Your task to perform on an android device: read, delete, or share a saved page in the chrome app Image 0: 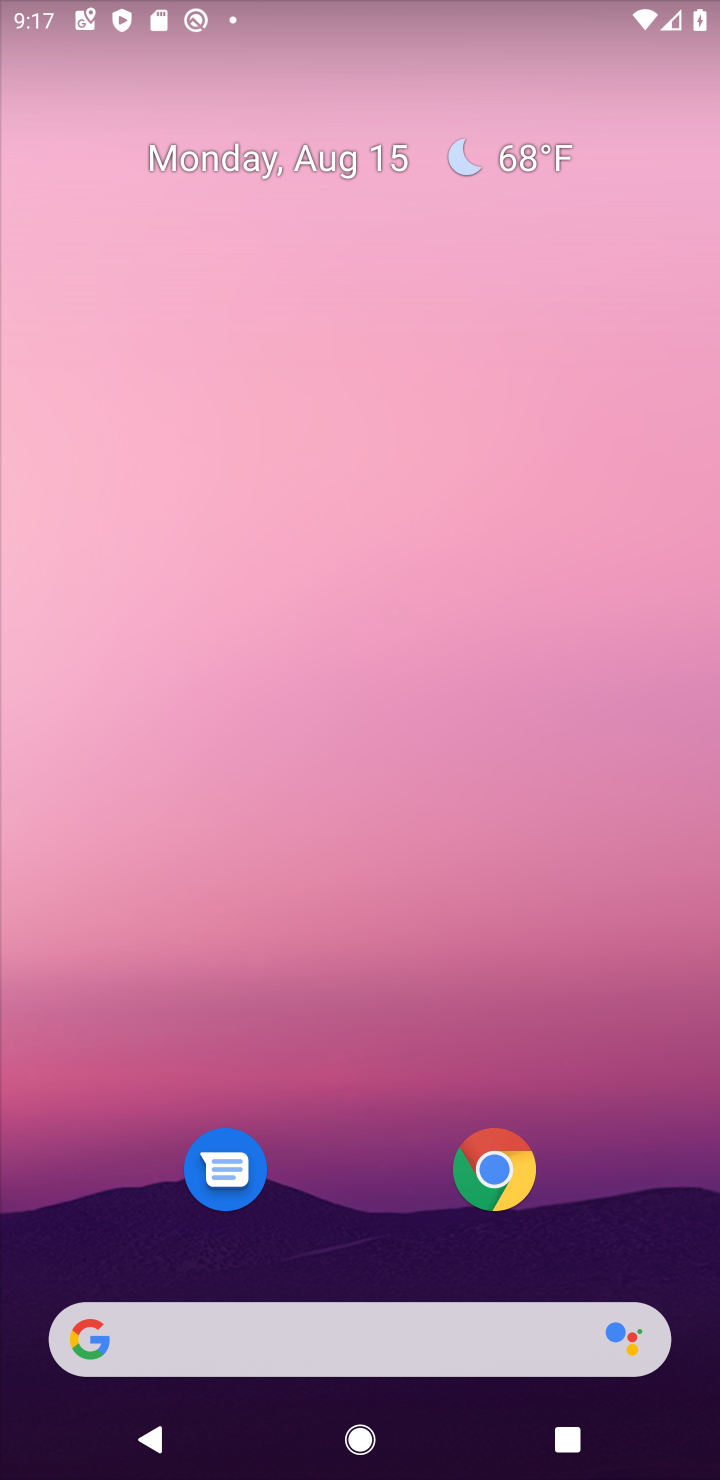
Step 0: press home button
Your task to perform on an android device: read, delete, or share a saved page in the chrome app Image 1: 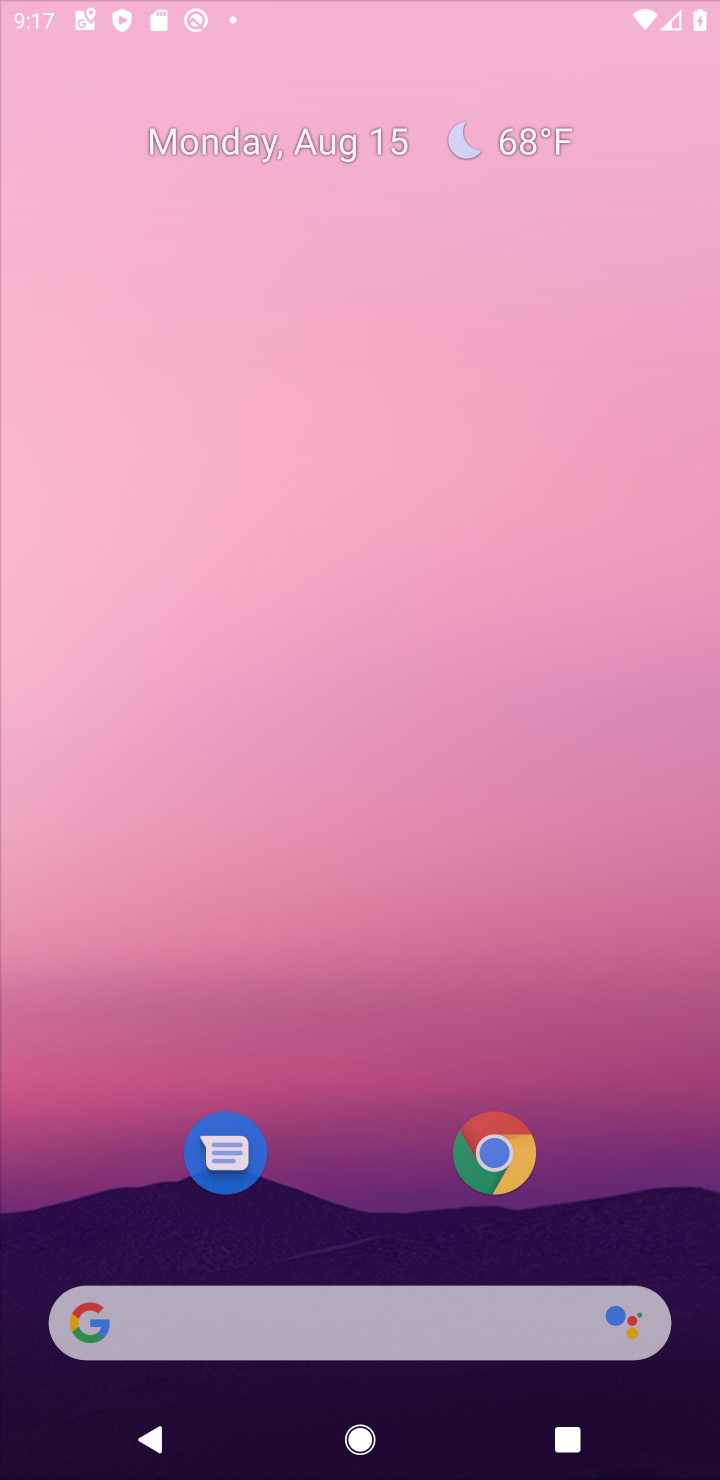
Step 1: click (492, 278)
Your task to perform on an android device: read, delete, or share a saved page in the chrome app Image 2: 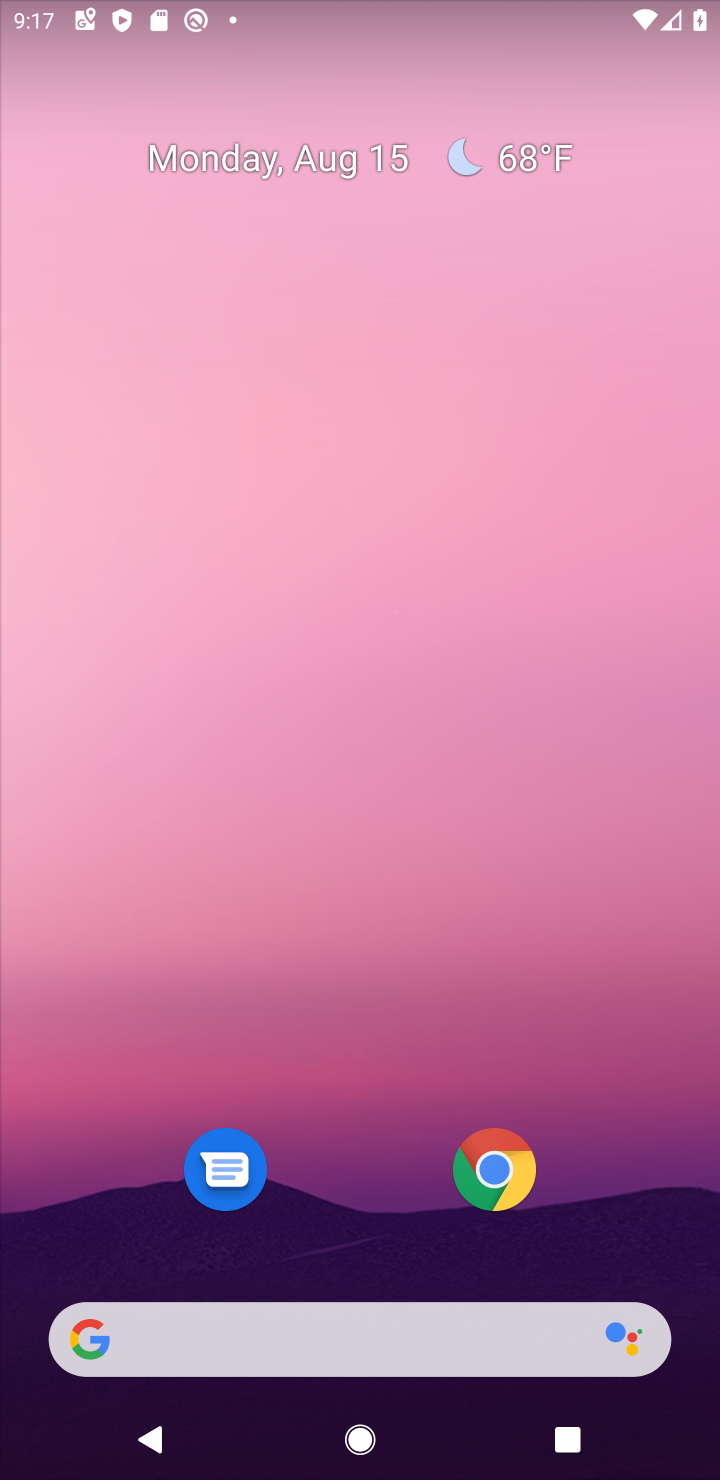
Step 2: click (492, 1172)
Your task to perform on an android device: read, delete, or share a saved page in the chrome app Image 3: 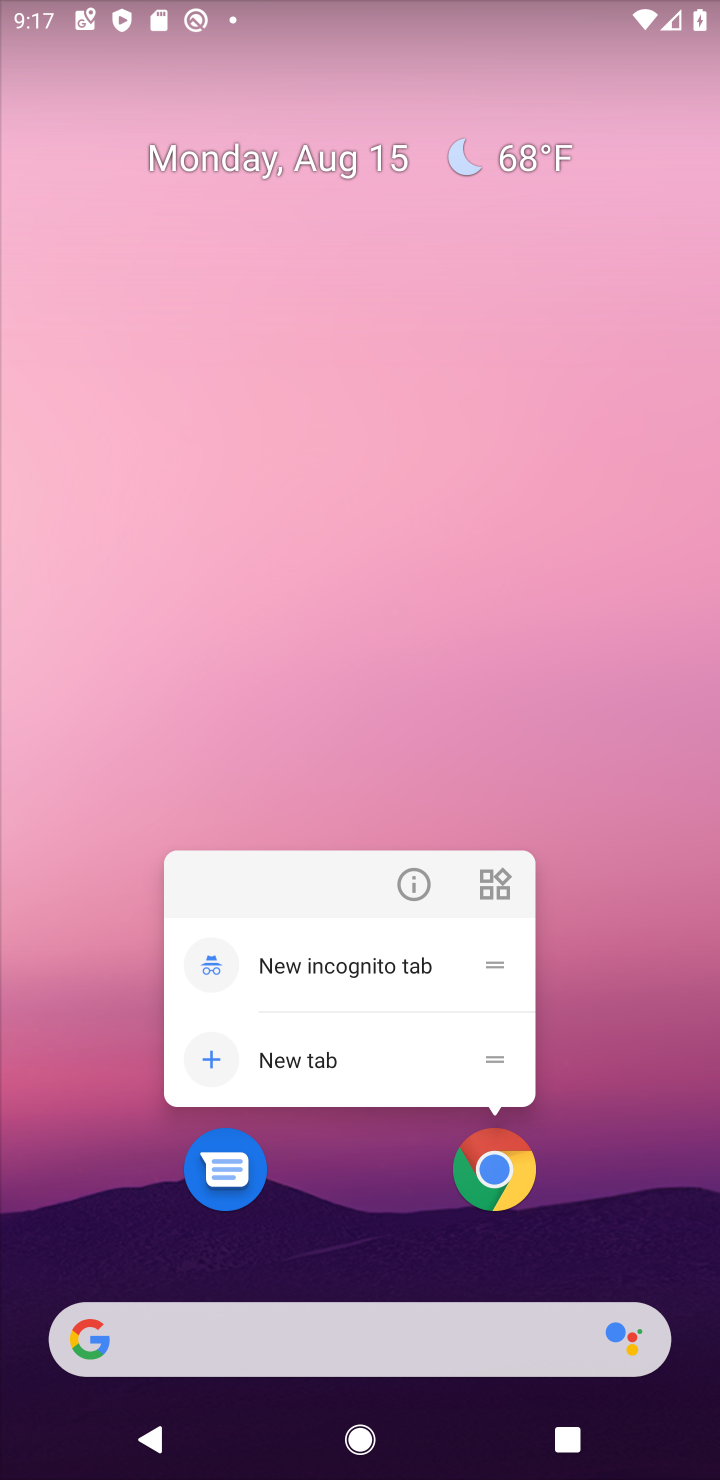
Step 3: click (506, 1163)
Your task to perform on an android device: read, delete, or share a saved page in the chrome app Image 4: 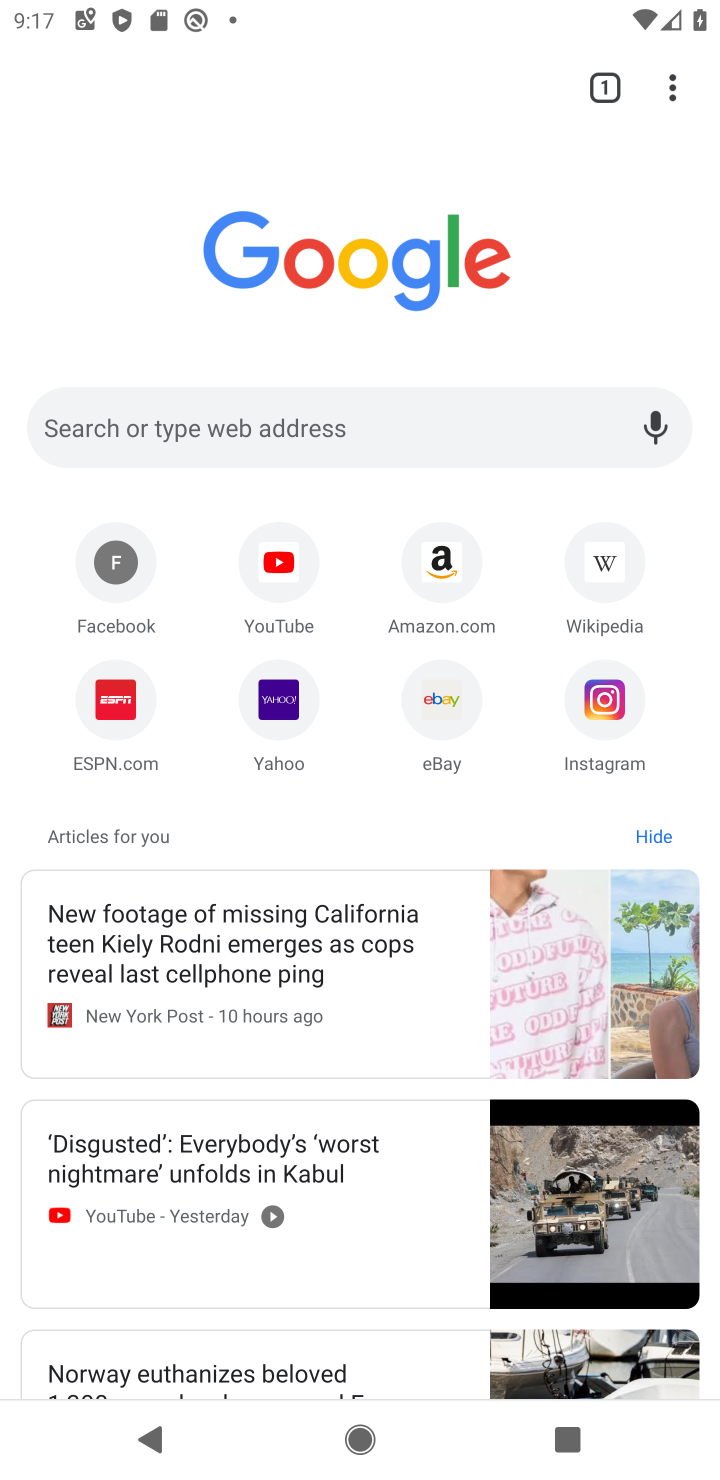
Step 4: drag from (676, 75) to (433, 589)
Your task to perform on an android device: read, delete, or share a saved page in the chrome app Image 5: 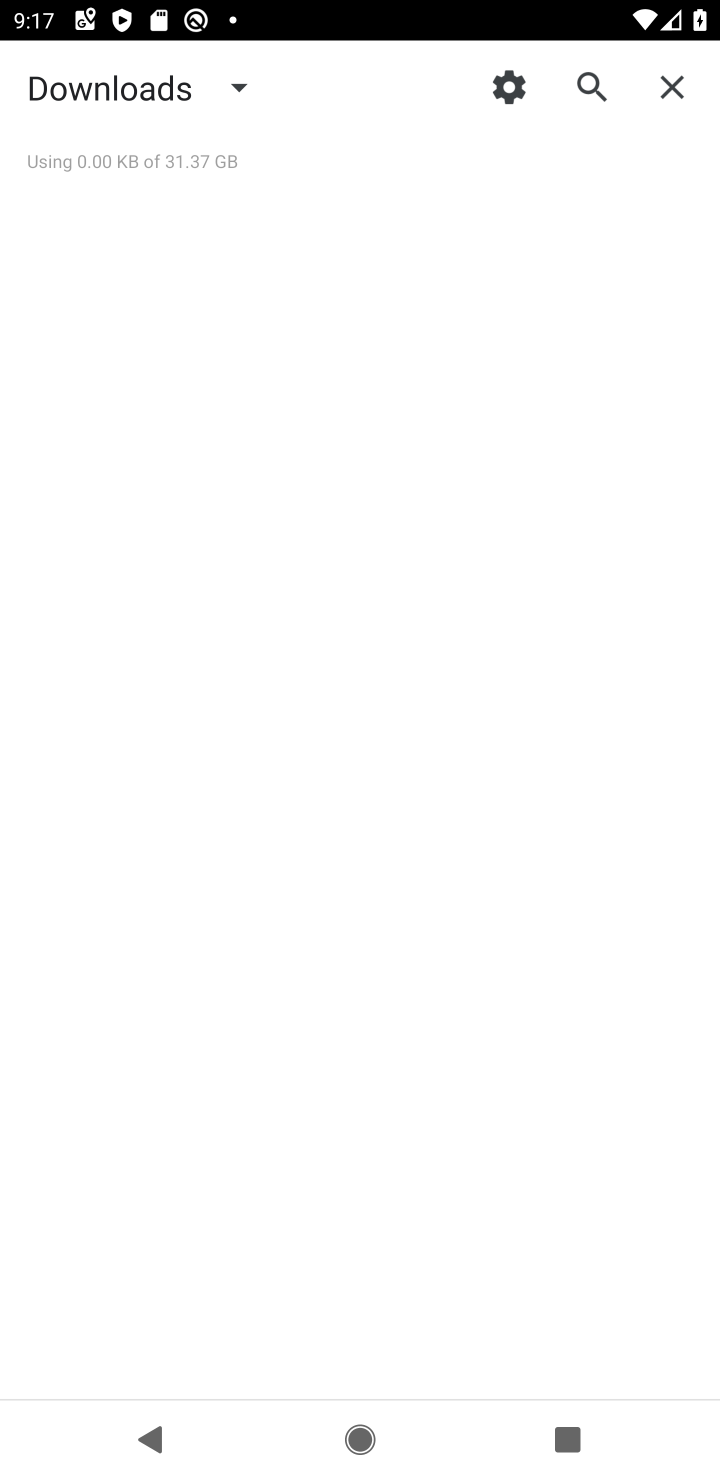
Step 5: click (180, 87)
Your task to perform on an android device: read, delete, or share a saved page in the chrome app Image 6: 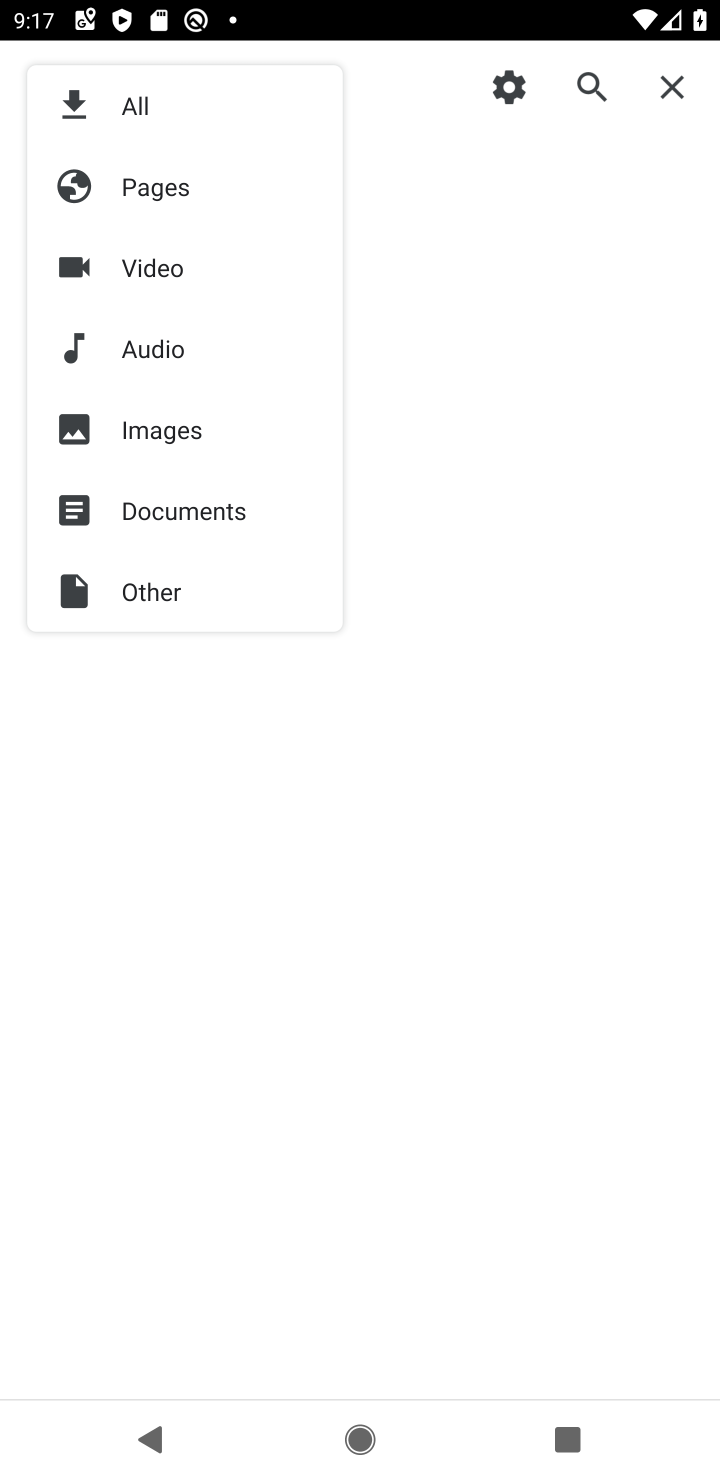
Step 6: click (163, 188)
Your task to perform on an android device: read, delete, or share a saved page in the chrome app Image 7: 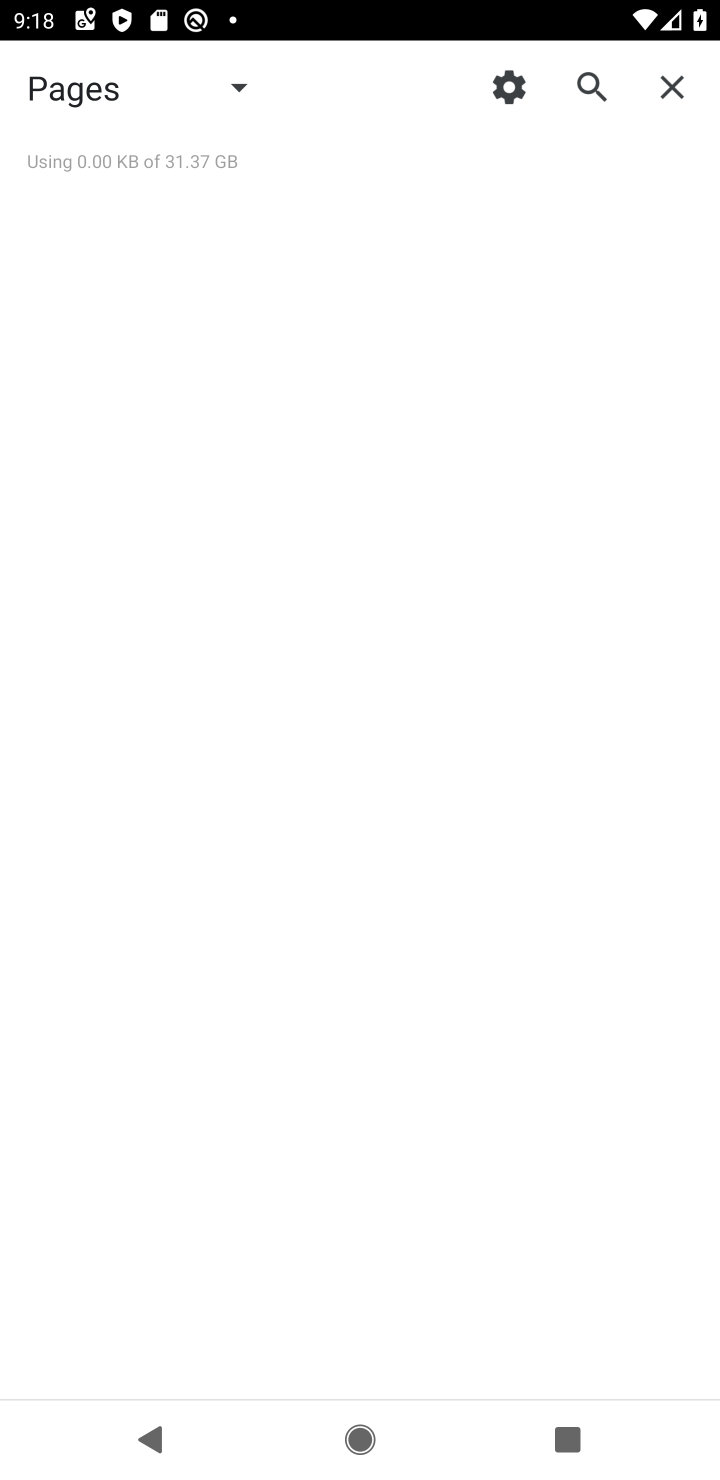
Step 7: task complete